Your task to perform on an android device: stop showing notifications on the lock screen Image 0: 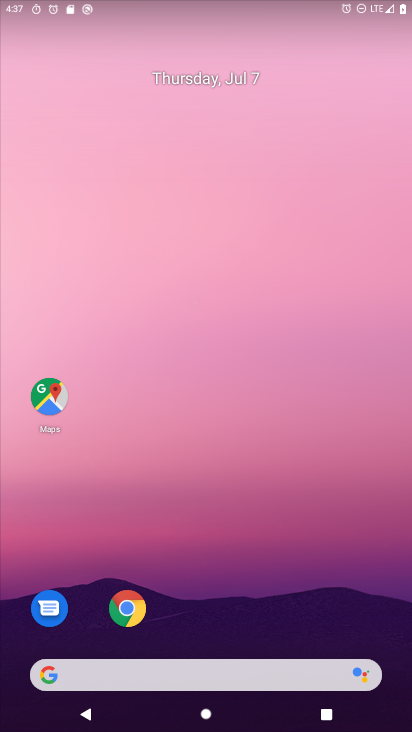
Step 0: drag from (247, 728) to (261, 153)
Your task to perform on an android device: stop showing notifications on the lock screen Image 1: 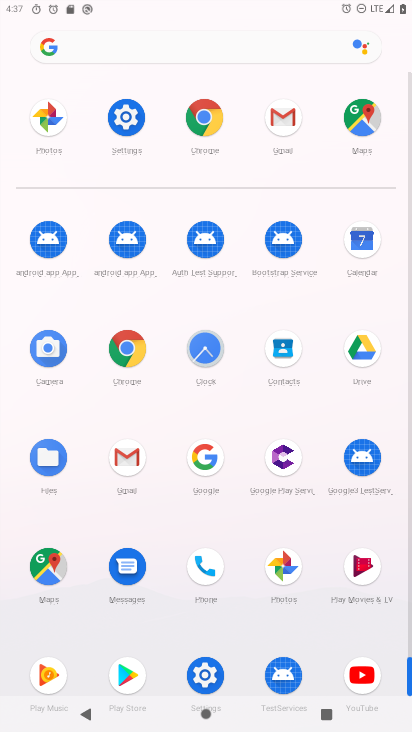
Step 1: click (120, 117)
Your task to perform on an android device: stop showing notifications on the lock screen Image 2: 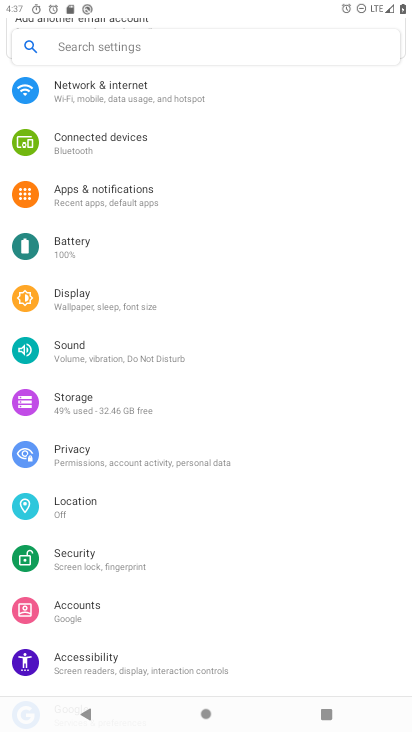
Step 2: click (96, 194)
Your task to perform on an android device: stop showing notifications on the lock screen Image 3: 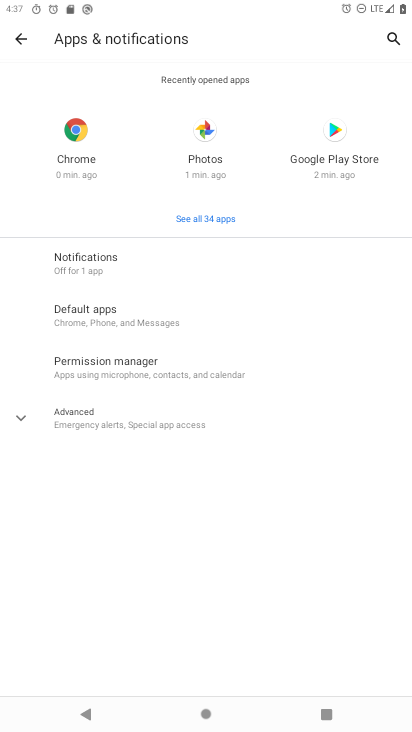
Step 3: click (81, 257)
Your task to perform on an android device: stop showing notifications on the lock screen Image 4: 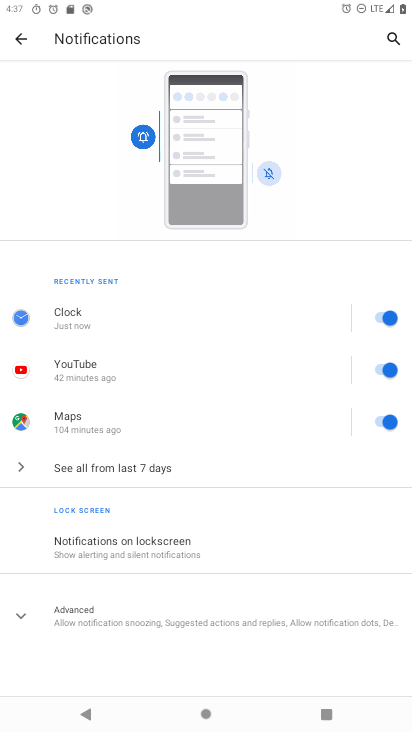
Step 4: click (122, 540)
Your task to perform on an android device: stop showing notifications on the lock screen Image 5: 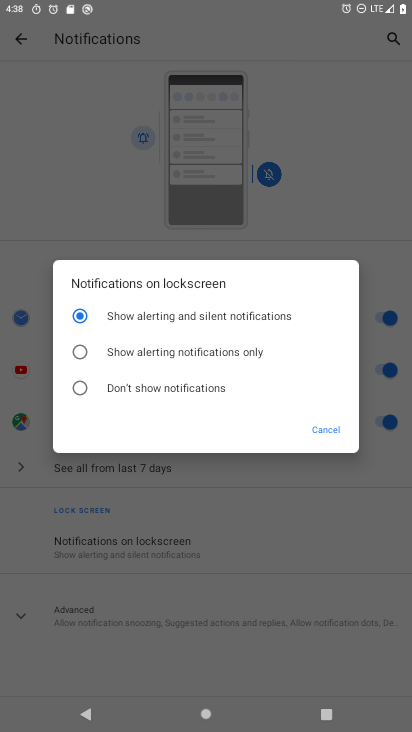
Step 5: click (76, 387)
Your task to perform on an android device: stop showing notifications on the lock screen Image 6: 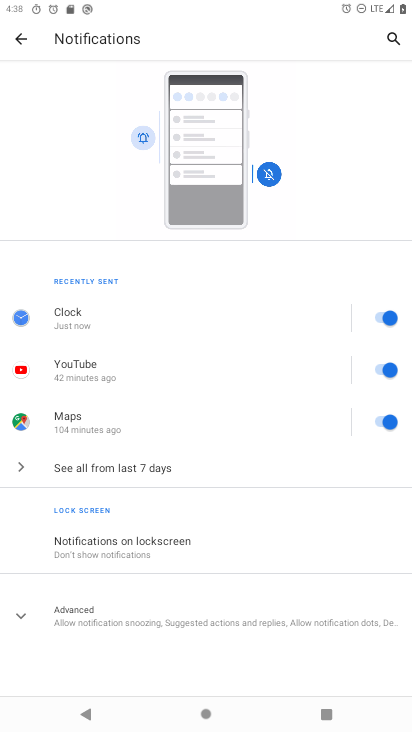
Step 6: task complete